Your task to perform on an android device: change the clock style Image 0: 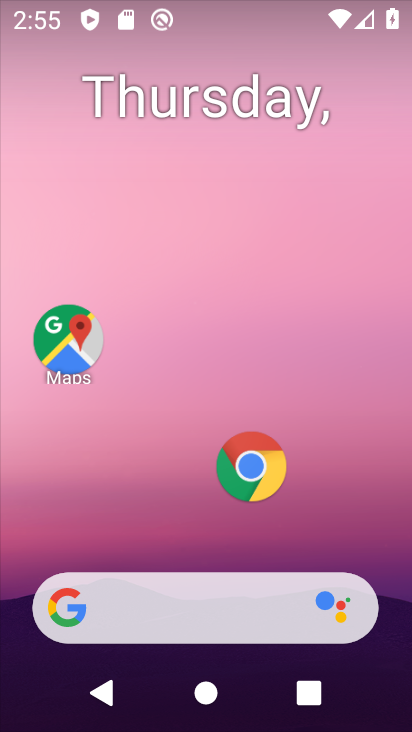
Step 0: drag from (220, 536) to (193, 170)
Your task to perform on an android device: change the clock style Image 1: 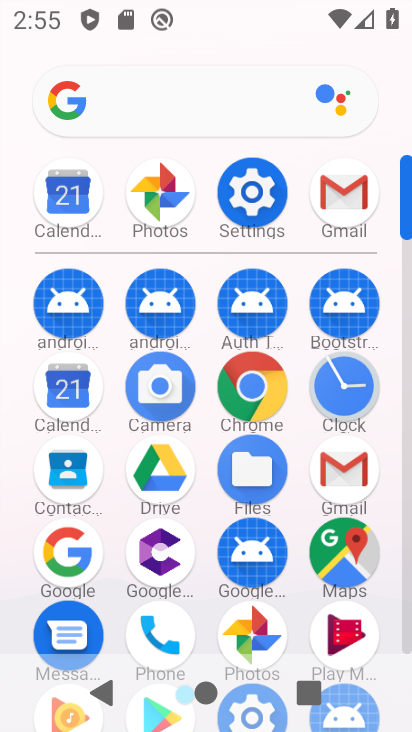
Step 1: click (331, 394)
Your task to perform on an android device: change the clock style Image 2: 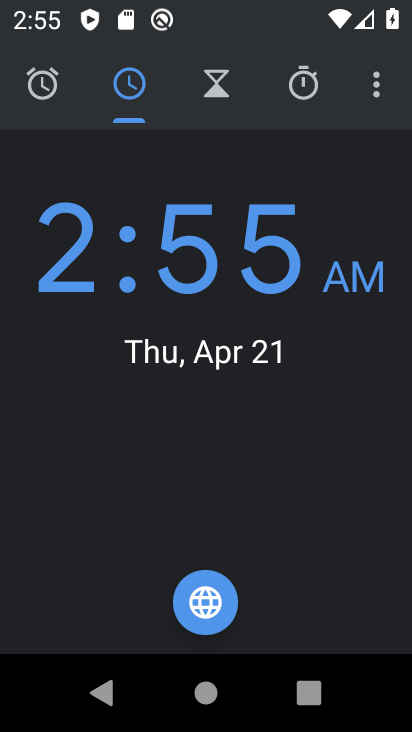
Step 2: click (376, 90)
Your task to perform on an android device: change the clock style Image 3: 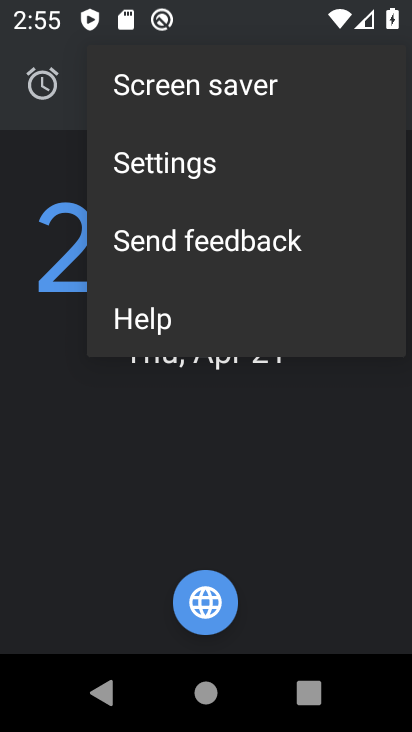
Step 3: click (237, 165)
Your task to perform on an android device: change the clock style Image 4: 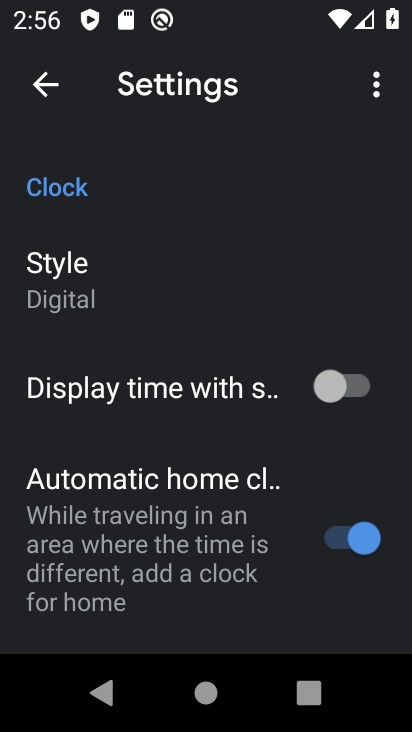
Step 4: click (149, 284)
Your task to perform on an android device: change the clock style Image 5: 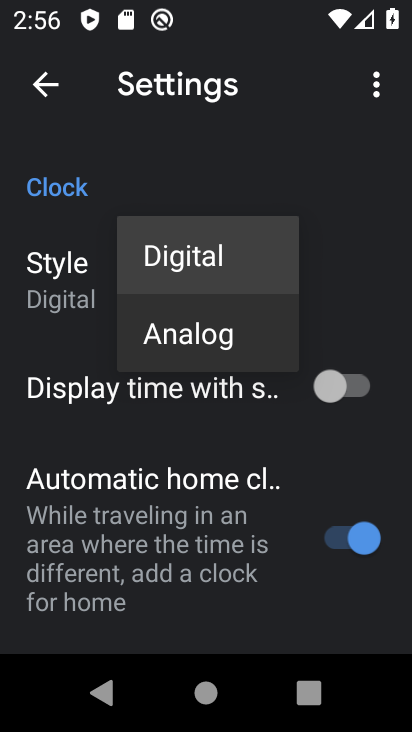
Step 5: click (170, 320)
Your task to perform on an android device: change the clock style Image 6: 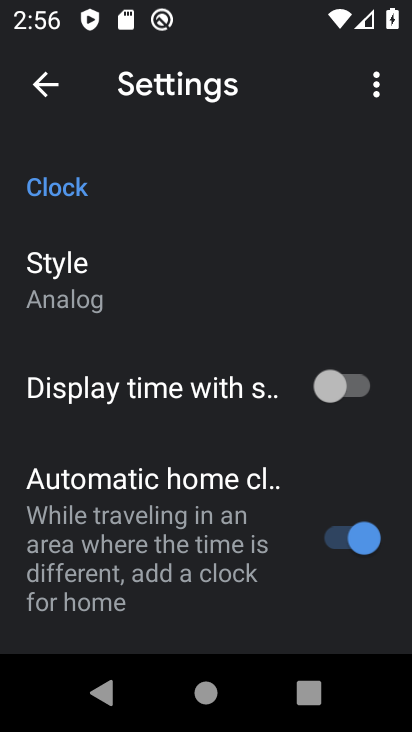
Step 6: click (133, 278)
Your task to perform on an android device: change the clock style Image 7: 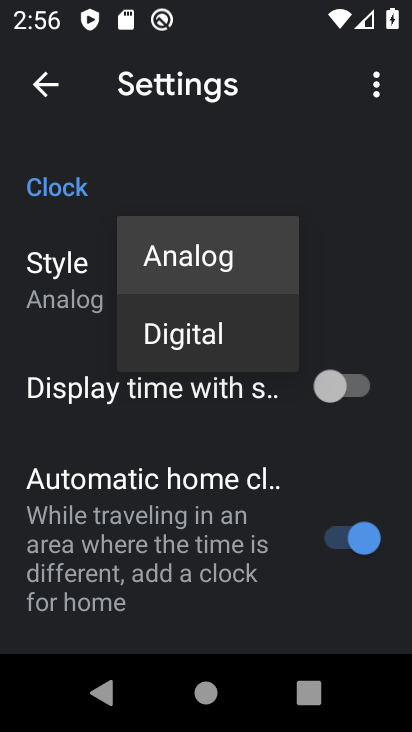
Step 7: click (161, 328)
Your task to perform on an android device: change the clock style Image 8: 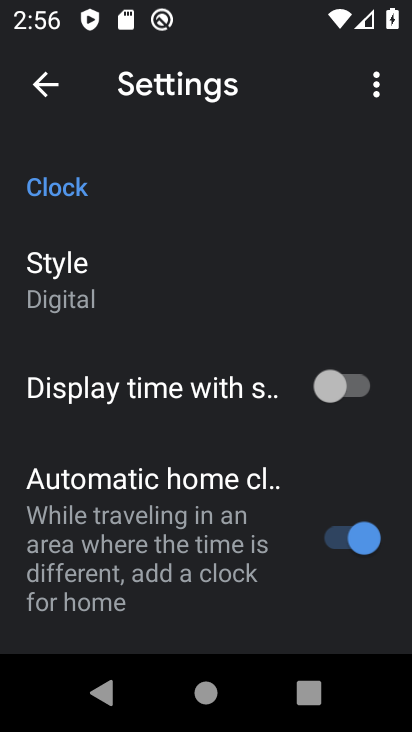
Step 8: task complete